Your task to perform on an android device: check android version Image 0: 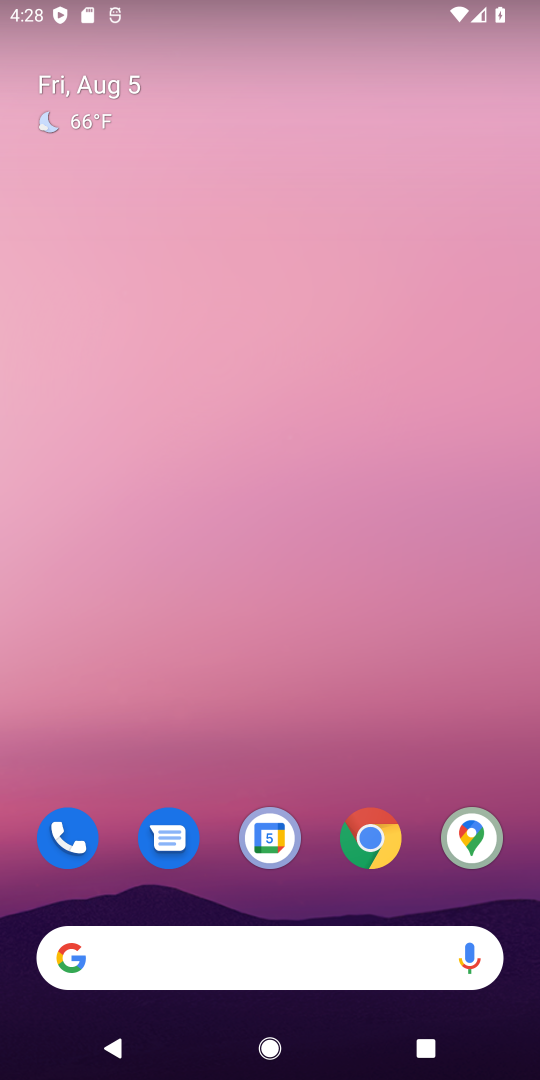
Step 0: drag from (349, 840) to (370, 342)
Your task to perform on an android device: check android version Image 1: 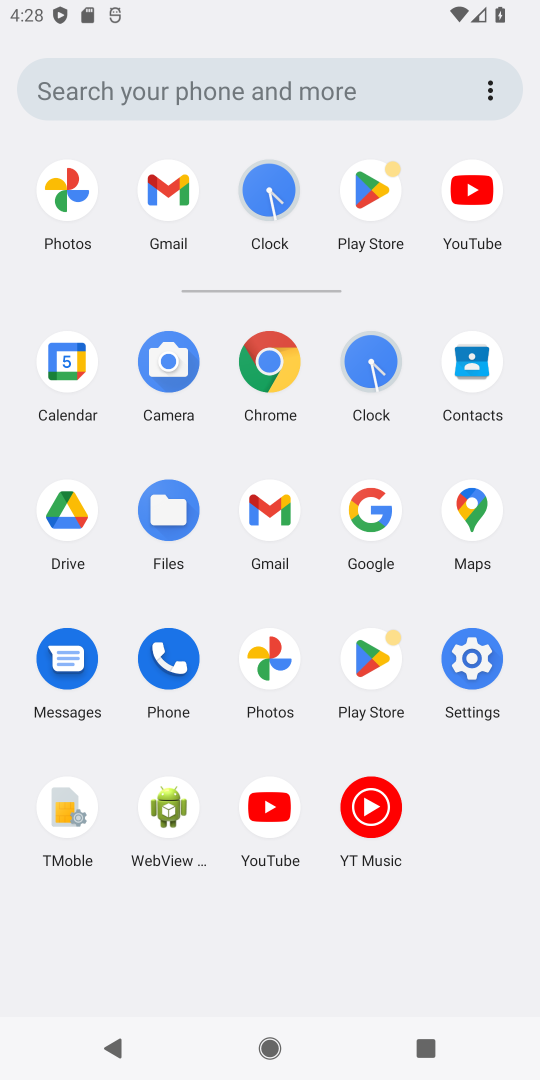
Step 1: click (470, 641)
Your task to perform on an android device: check android version Image 2: 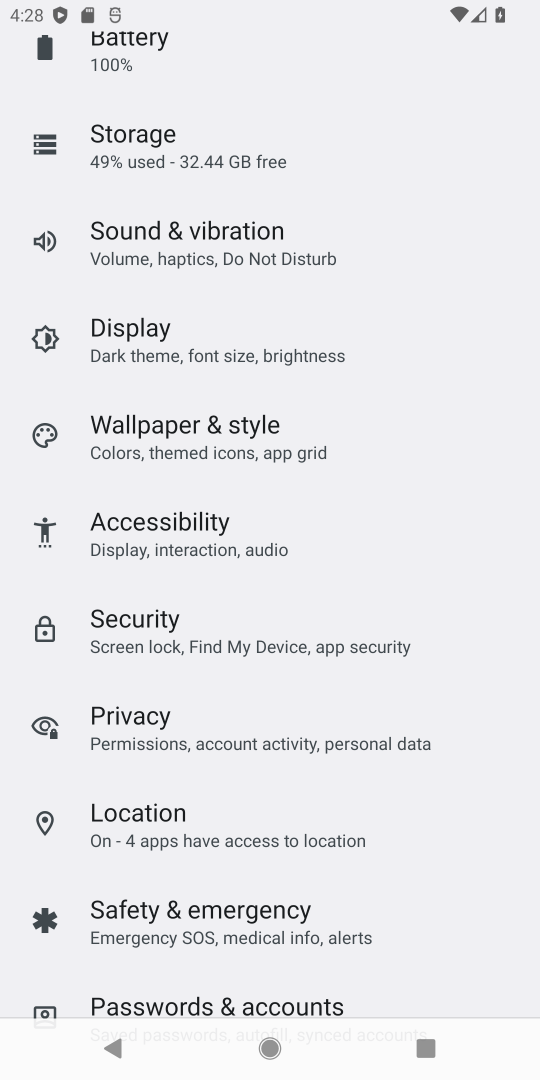
Step 2: drag from (254, 959) to (299, 135)
Your task to perform on an android device: check android version Image 3: 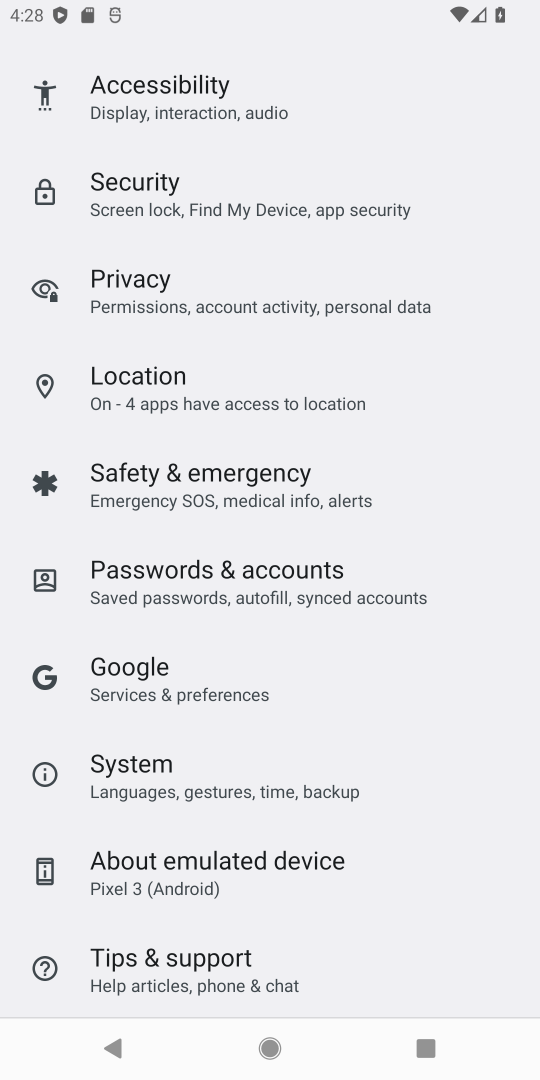
Step 3: click (200, 881)
Your task to perform on an android device: check android version Image 4: 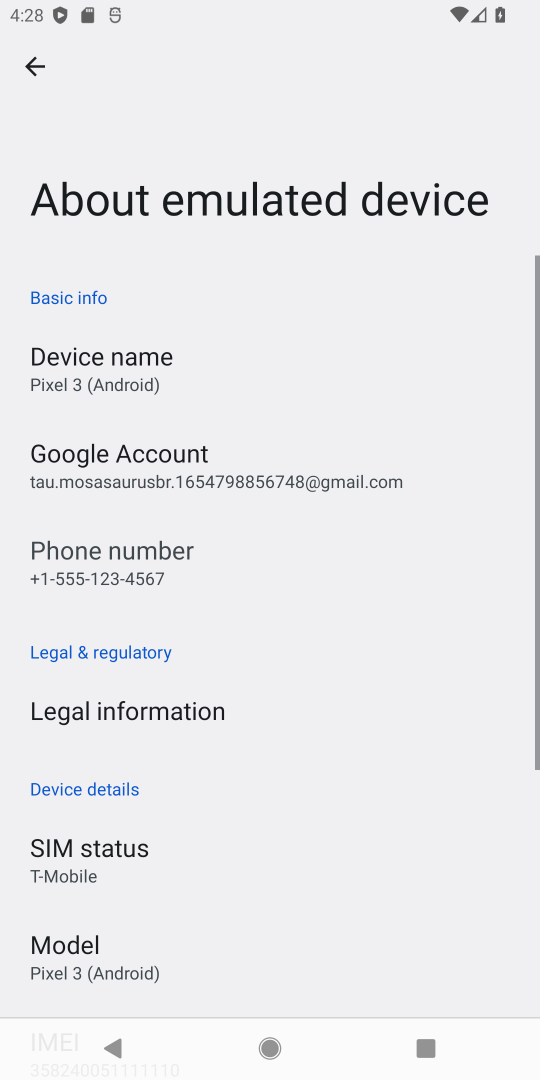
Step 4: drag from (175, 968) to (184, 340)
Your task to perform on an android device: check android version Image 5: 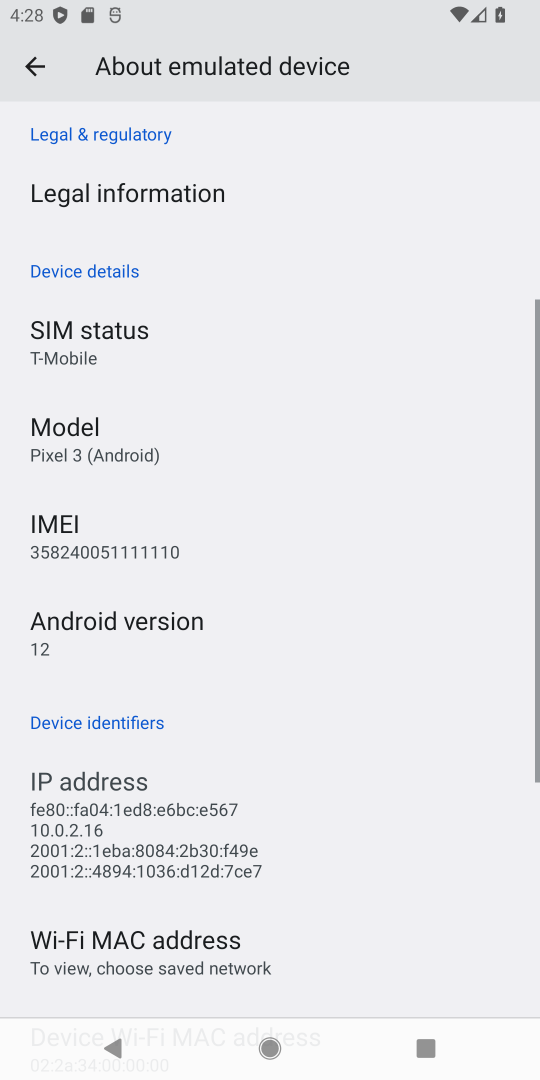
Step 5: click (130, 620)
Your task to perform on an android device: check android version Image 6: 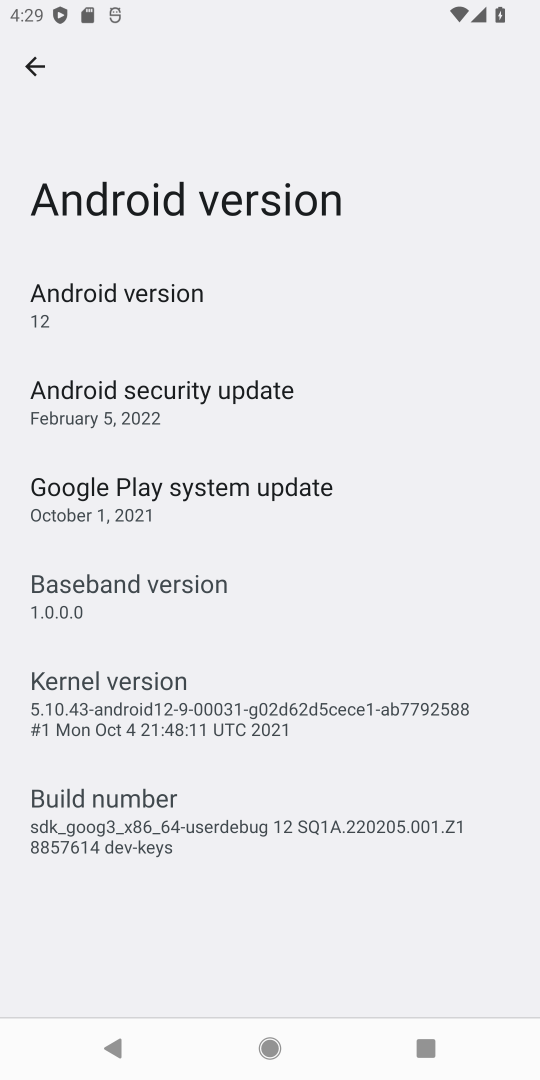
Step 6: task complete